Your task to perform on an android device: Go to Google maps Image 0: 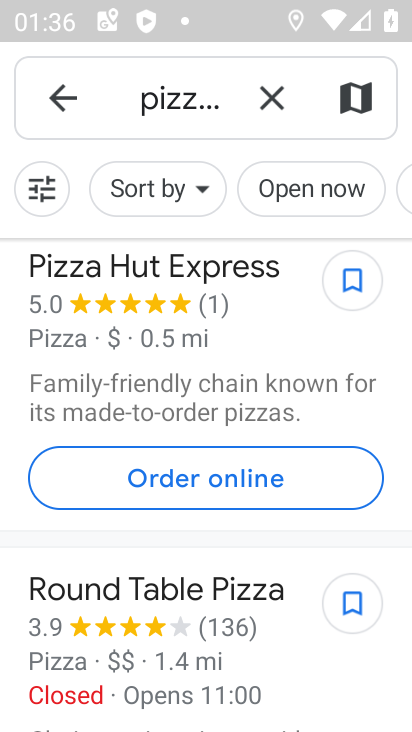
Step 0: press home button
Your task to perform on an android device: Go to Google maps Image 1: 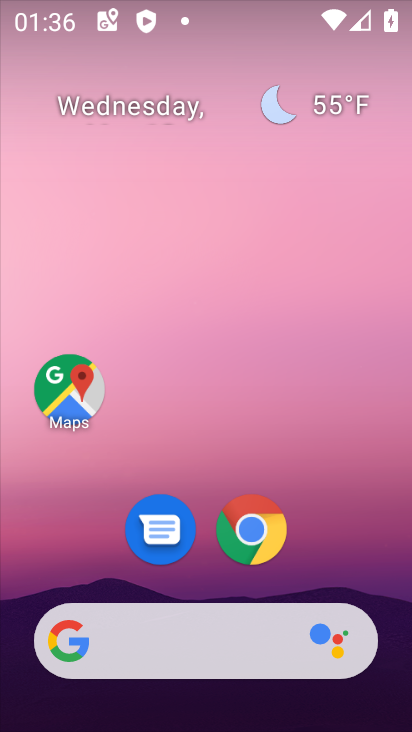
Step 1: drag from (231, 731) to (224, 218)
Your task to perform on an android device: Go to Google maps Image 2: 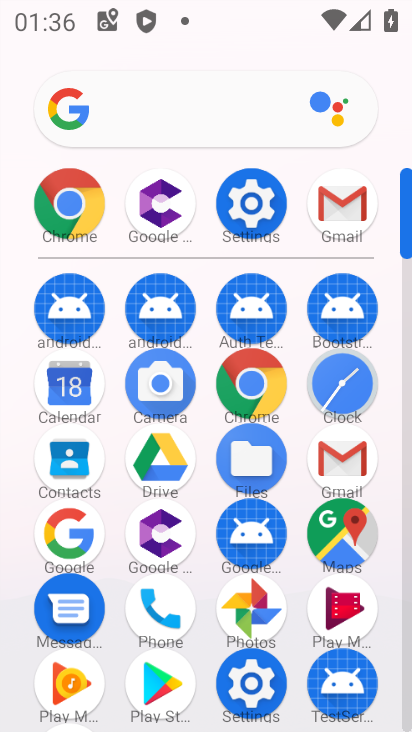
Step 2: click (336, 537)
Your task to perform on an android device: Go to Google maps Image 3: 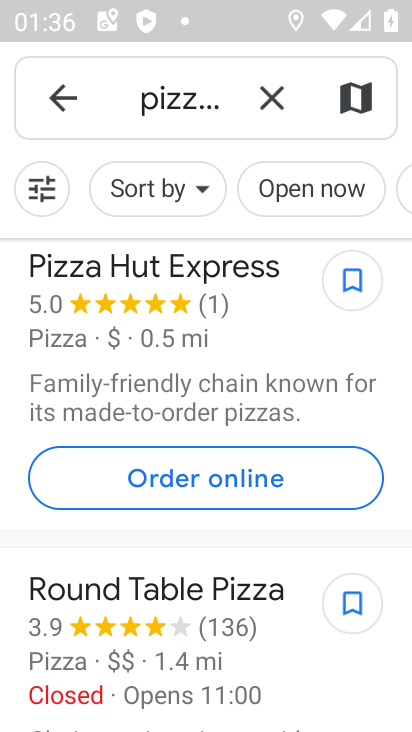
Step 3: task complete